Your task to perform on an android device: Open calendar and show me the third week of next month Image 0: 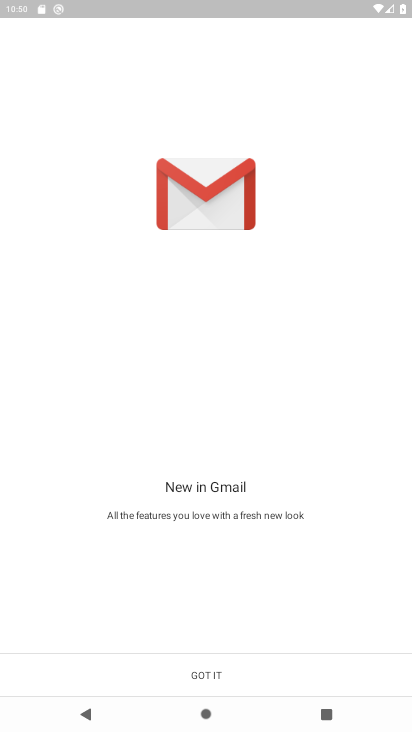
Step 0: press home button
Your task to perform on an android device: Open calendar and show me the third week of next month Image 1: 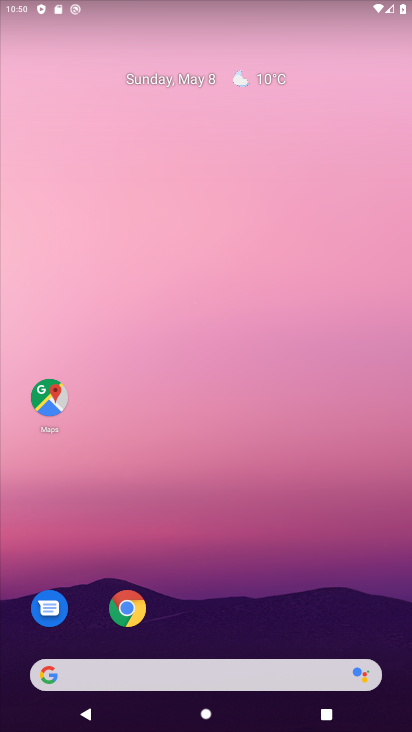
Step 1: drag from (283, 582) to (275, 76)
Your task to perform on an android device: Open calendar and show me the third week of next month Image 2: 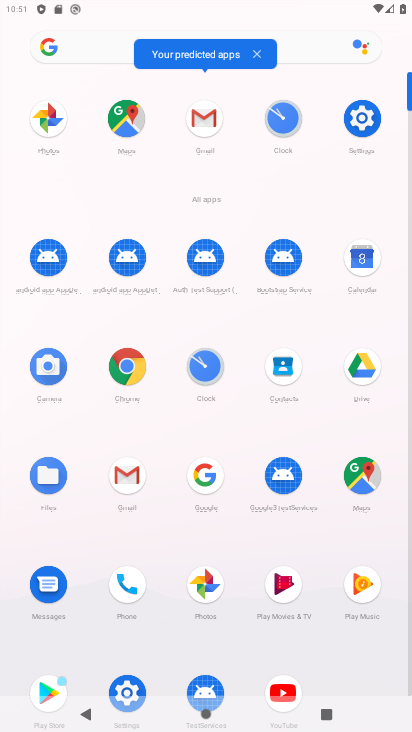
Step 2: click (358, 266)
Your task to perform on an android device: Open calendar and show me the third week of next month Image 3: 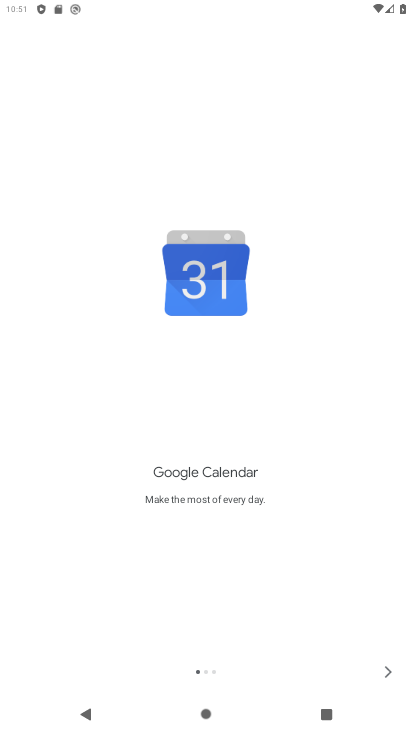
Step 3: click (387, 671)
Your task to perform on an android device: Open calendar and show me the third week of next month Image 4: 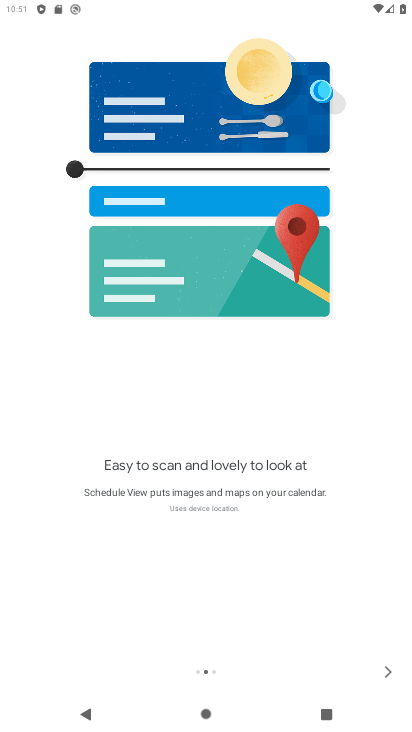
Step 4: click (388, 674)
Your task to perform on an android device: Open calendar and show me the third week of next month Image 5: 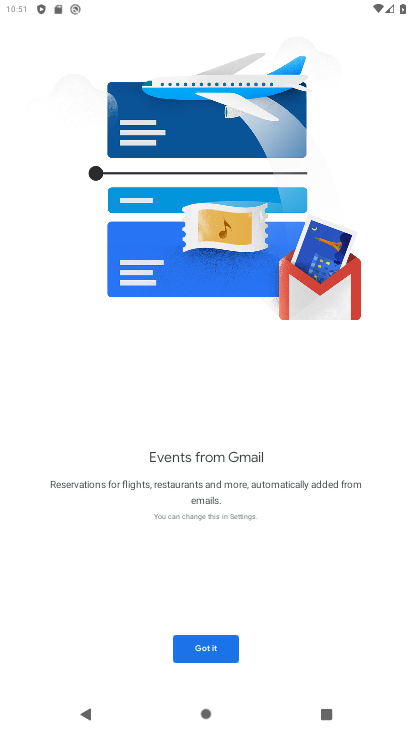
Step 5: click (198, 637)
Your task to perform on an android device: Open calendar and show me the third week of next month Image 6: 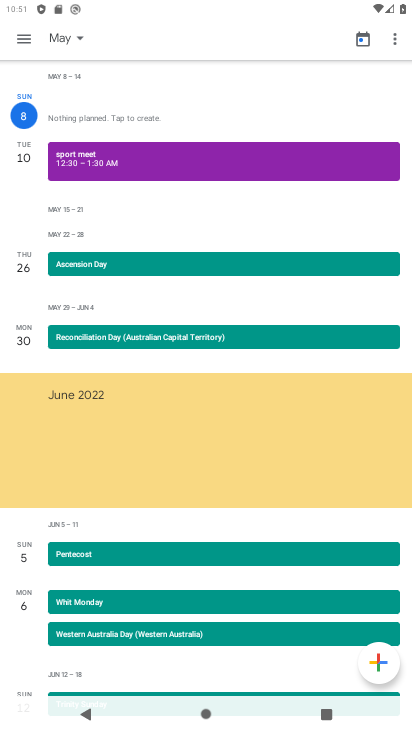
Step 6: click (61, 37)
Your task to perform on an android device: Open calendar and show me the third week of next month Image 7: 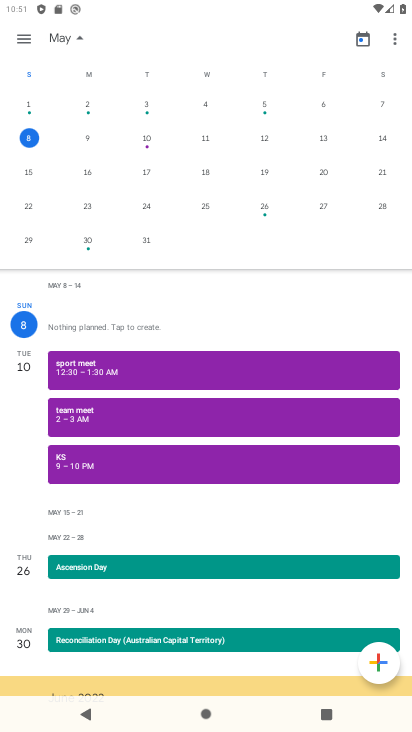
Step 7: drag from (301, 166) to (0, 136)
Your task to perform on an android device: Open calendar and show me the third week of next month Image 8: 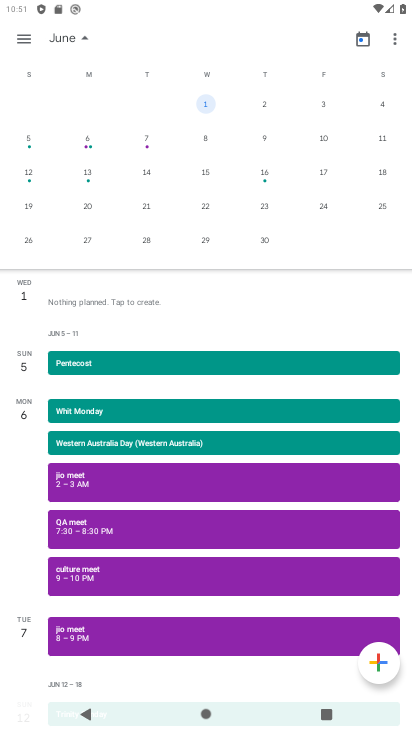
Step 8: click (149, 205)
Your task to perform on an android device: Open calendar and show me the third week of next month Image 9: 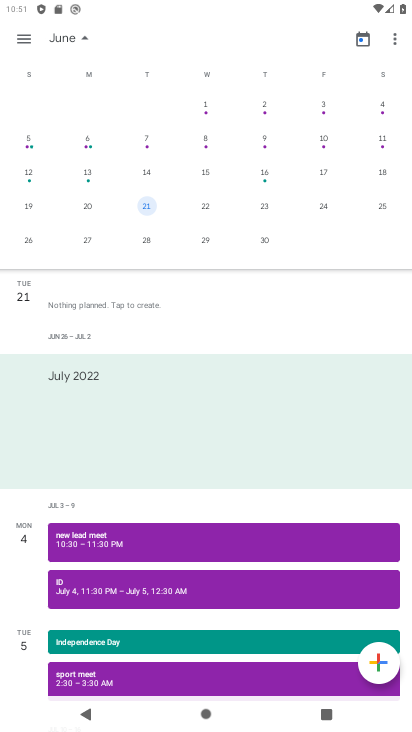
Step 9: task complete